Your task to perform on an android device: choose inbox layout in the gmail app Image 0: 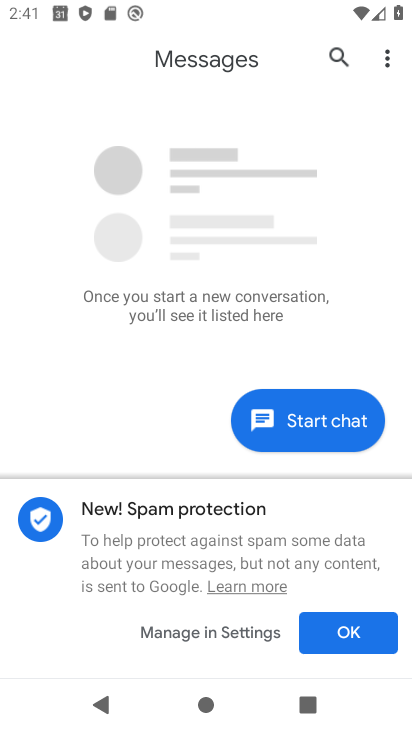
Step 0: press home button
Your task to perform on an android device: choose inbox layout in the gmail app Image 1: 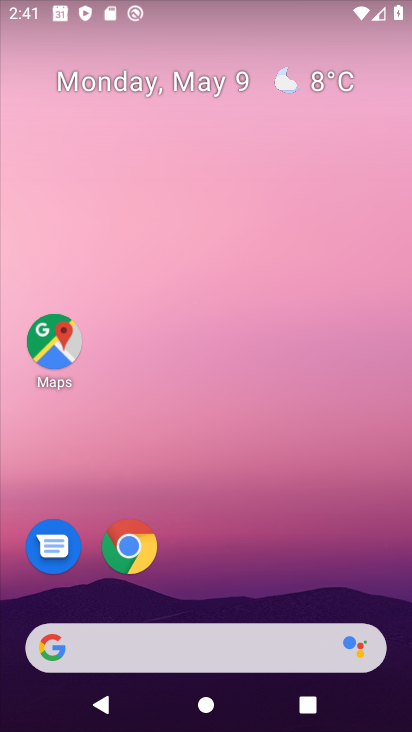
Step 1: drag from (216, 527) to (183, 29)
Your task to perform on an android device: choose inbox layout in the gmail app Image 2: 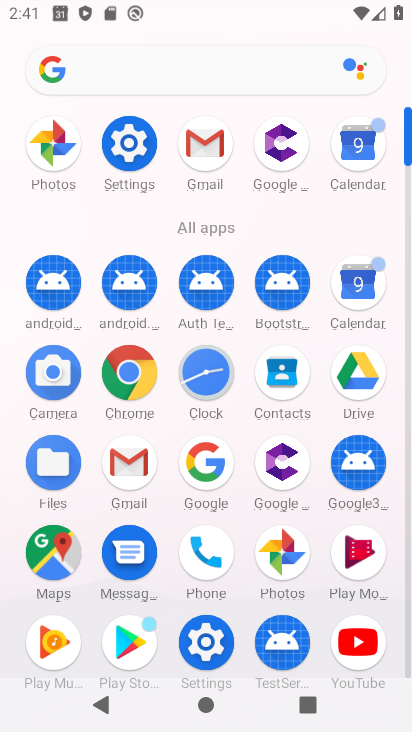
Step 2: click (206, 141)
Your task to perform on an android device: choose inbox layout in the gmail app Image 3: 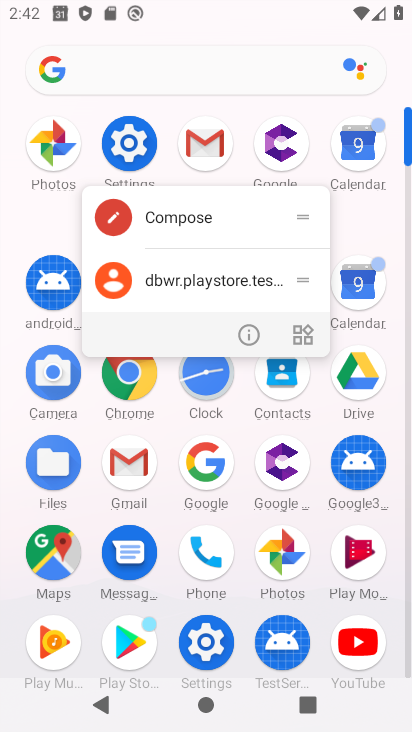
Step 3: click (206, 142)
Your task to perform on an android device: choose inbox layout in the gmail app Image 4: 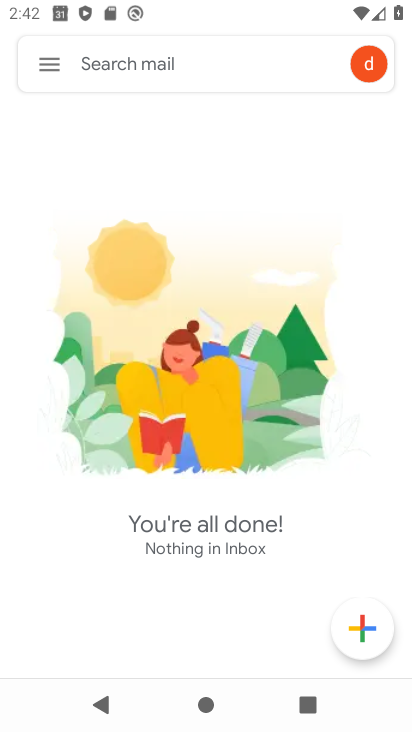
Step 4: click (53, 64)
Your task to perform on an android device: choose inbox layout in the gmail app Image 5: 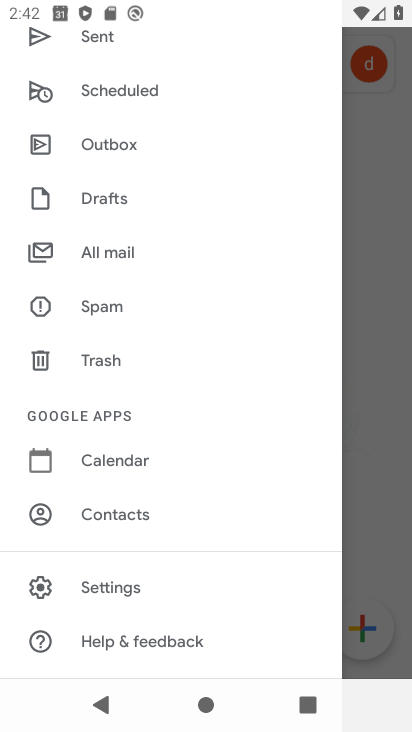
Step 5: click (139, 584)
Your task to perform on an android device: choose inbox layout in the gmail app Image 6: 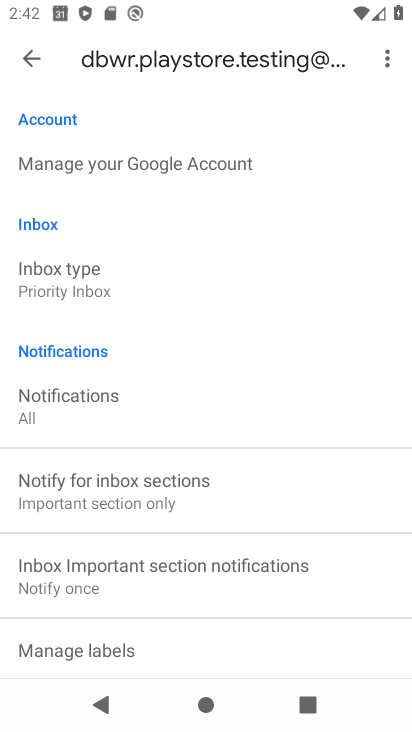
Step 6: click (91, 265)
Your task to perform on an android device: choose inbox layout in the gmail app Image 7: 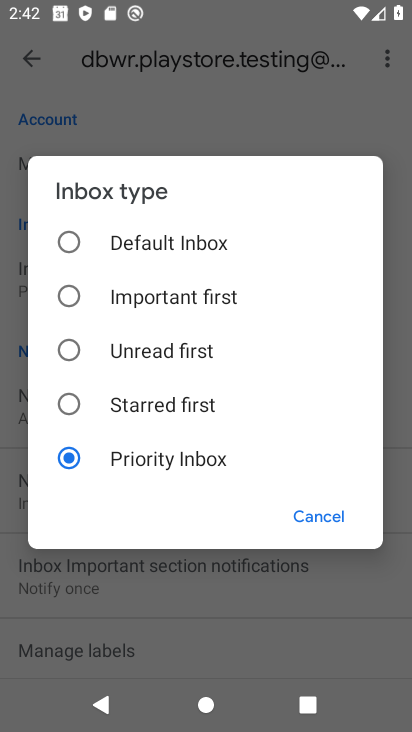
Step 7: click (69, 228)
Your task to perform on an android device: choose inbox layout in the gmail app Image 8: 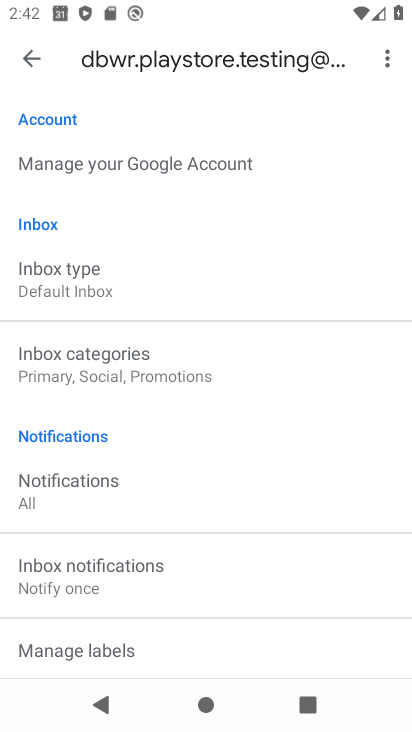
Step 8: task complete